Your task to perform on an android device: turn off notifications settings in the gmail app Image 0: 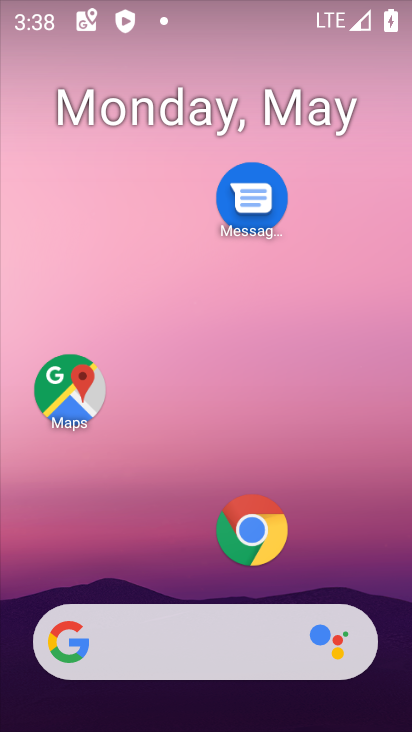
Step 0: drag from (143, 583) to (227, 63)
Your task to perform on an android device: turn off notifications settings in the gmail app Image 1: 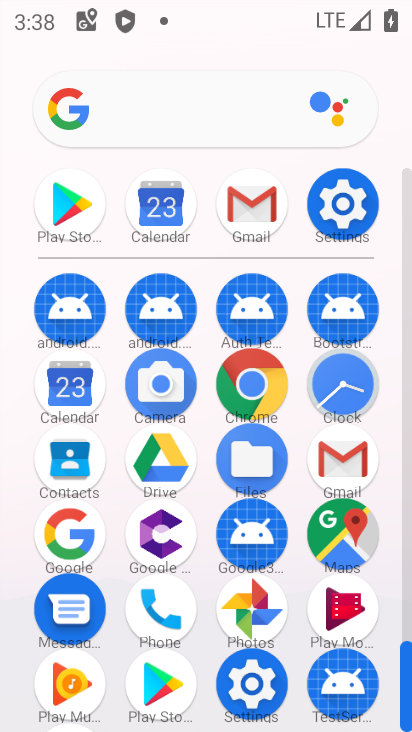
Step 1: click (258, 201)
Your task to perform on an android device: turn off notifications settings in the gmail app Image 2: 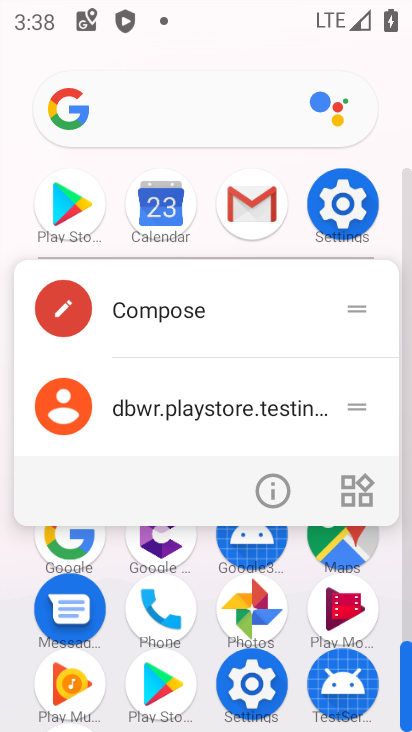
Step 2: click (282, 481)
Your task to perform on an android device: turn off notifications settings in the gmail app Image 3: 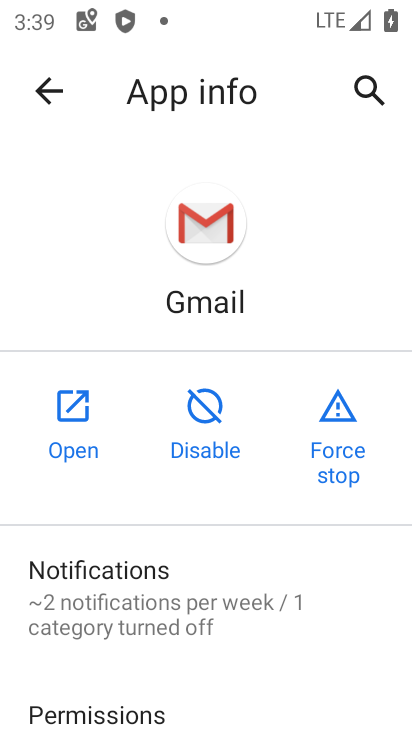
Step 3: click (181, 600)
Your task to perform on an android device: turn off notifications settings in the gmail app Image 4: 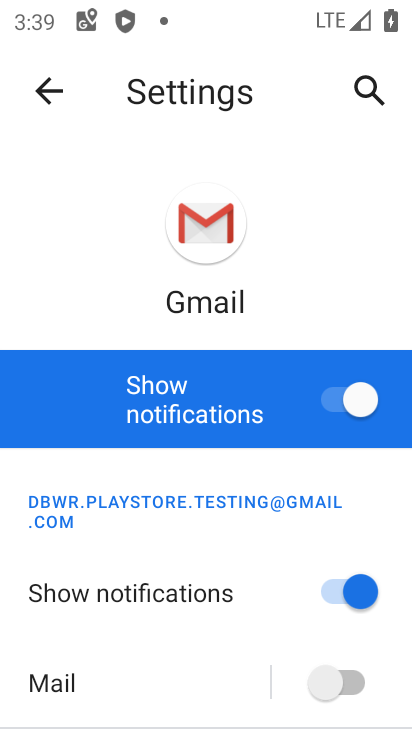
Step 4: click (348, 396)
Your task to perform on an android device: turn off notifications settings in the gmail app Image 5: 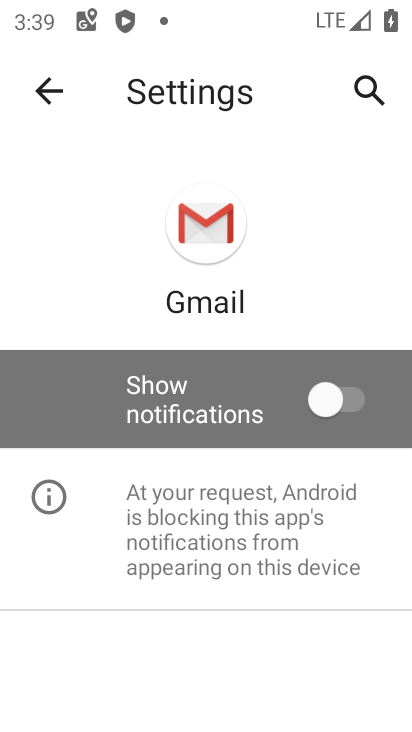
Step 5: task complete